Your task to perform on an android device: How do I get to the nearest Starbucks? Image 0: 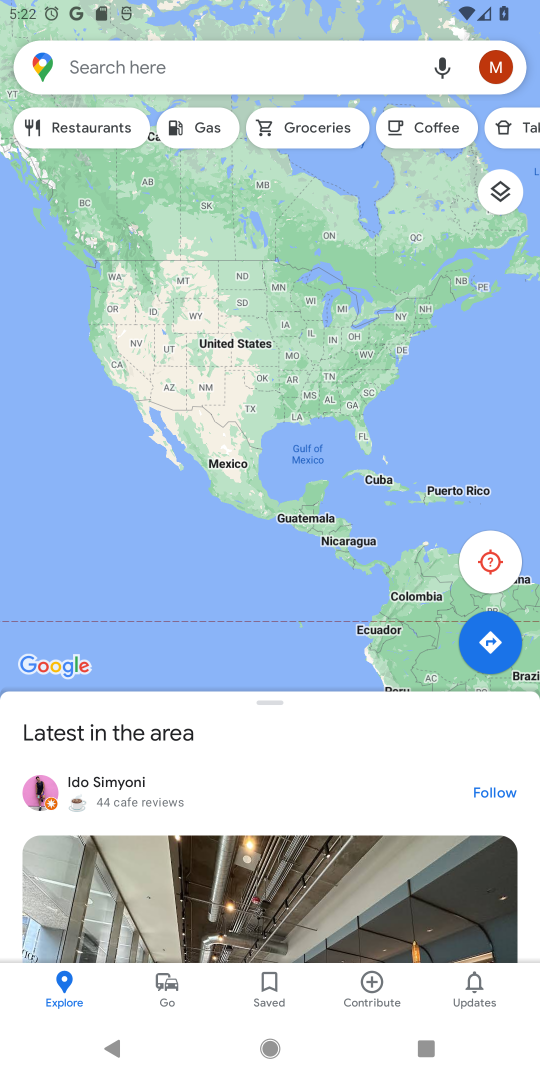
Step 0: click (268, 77)
Your task to perform on an android device: How do I get to the nearest Starbucks? Image 1: 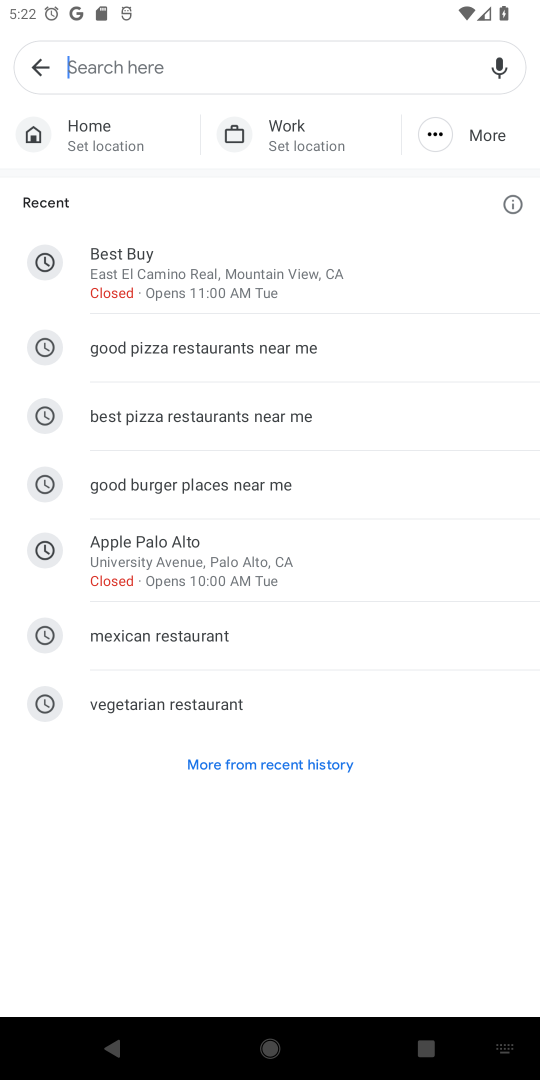
Step 1: type "How do I get to the nearest Starbucks?"
Your task to perform on an android device: How do I get to the nearest Starbucks? Image 2: 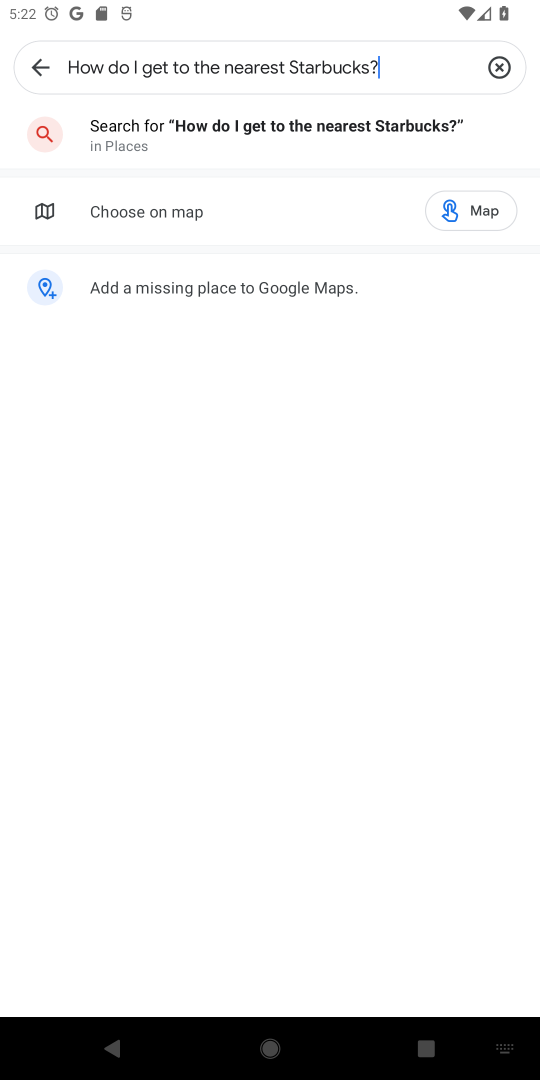
Step 2: click (348, 139)
Your task to perform on an android device: How do I get to the nearest Starbucks? Image 3: 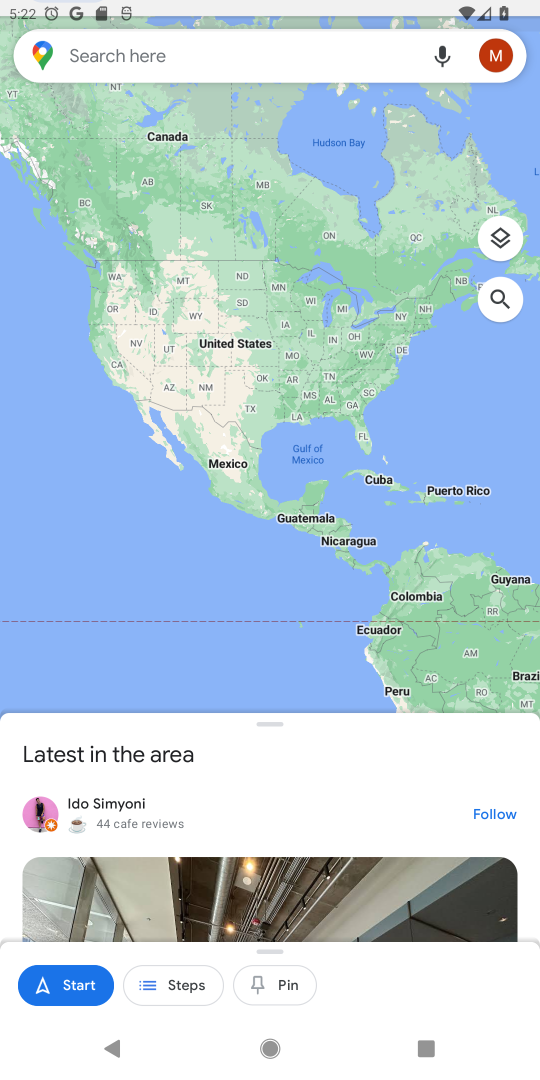
Step 3: task complete